Your task to perform on an android device: toggle wifi Image 0: 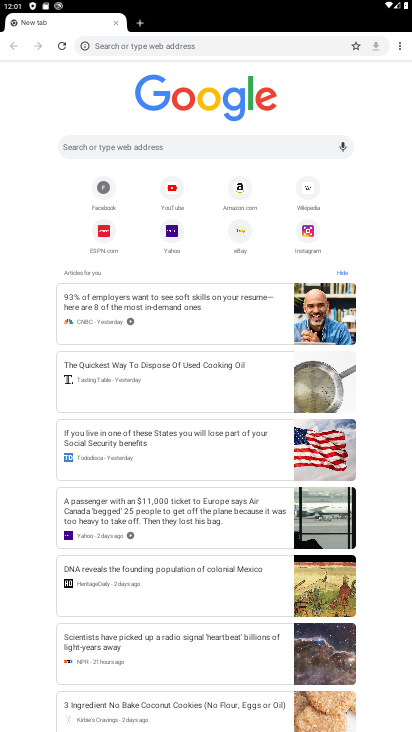
Step 0: press home button
Your task to perform on an android device: toggle wifi Image 1: 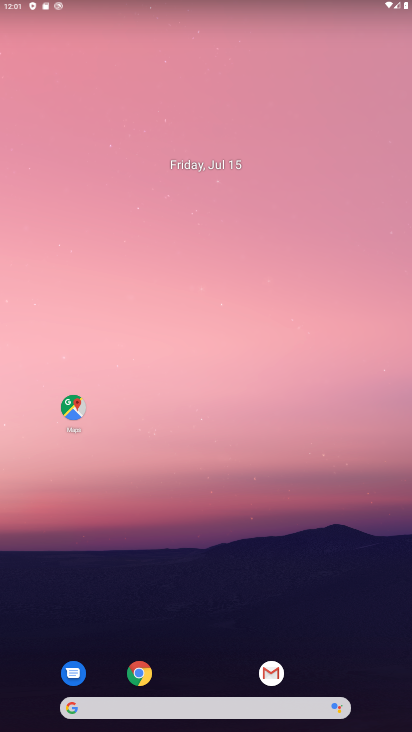
Step 1: drag from (197, 718) to (203, 144)
Your task to perform on an android device: toggle wifi Image 2: 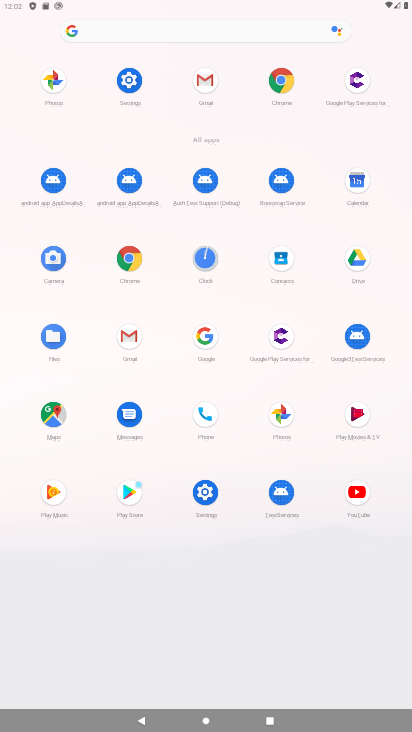
Step 2: drag from (120, 86) to (211, 684)
Your task to perform on an android device: toggle wifi Image 3: 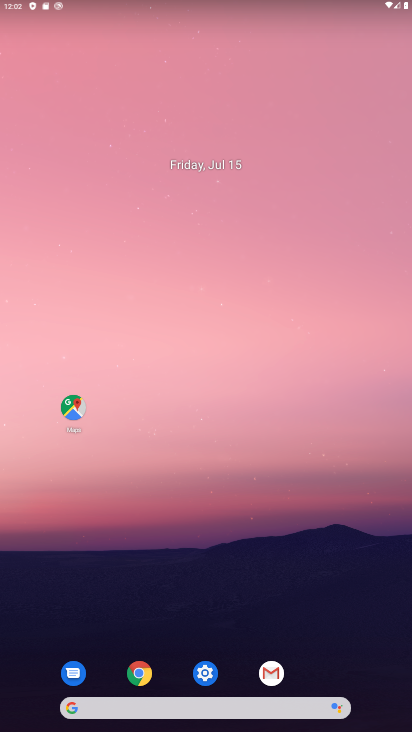
Step 3: click (211, 660)
Your task to perform on an android device: toggle wifi Image 4: 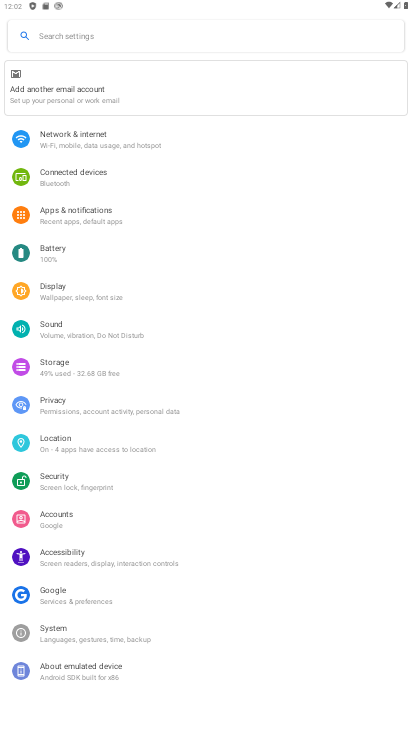
Step 4: click (123, 130)
Your task to perform on an android device: toggle wifi Image 5: 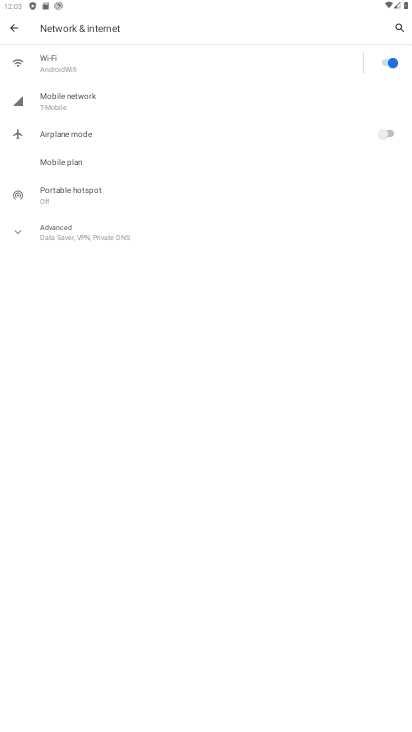
Step 5: click (107, 70)
Your task to perform on an android device: toggle wifi Image 6: 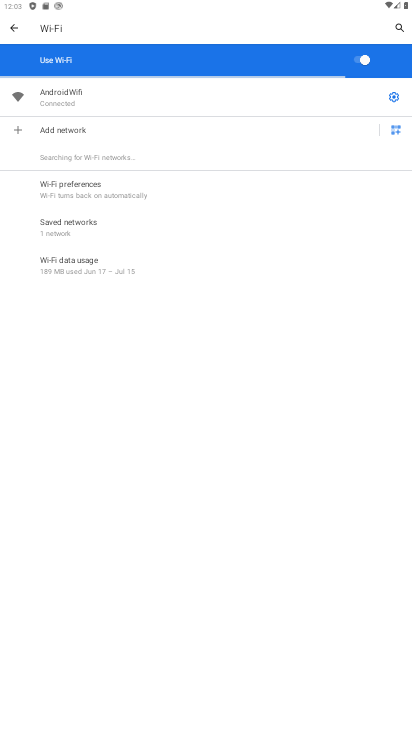
Step 6: task complete